Your task to perform on an android device: Go to Android settings Image 0: 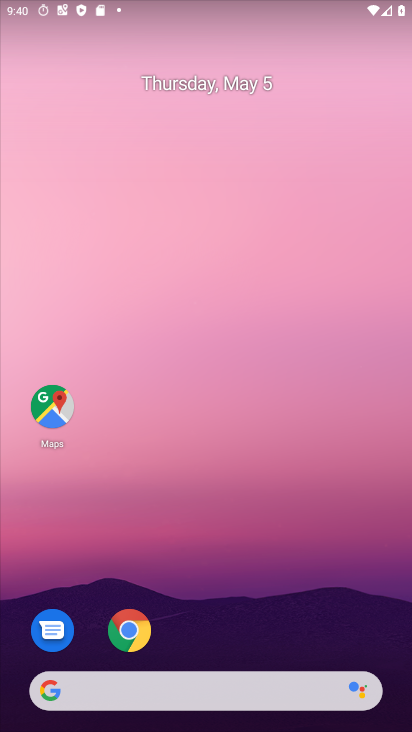
Step 0: drag from (205, 522) to (52, 120)
Your task to perform on an android device: Go to Android settings Image 1: 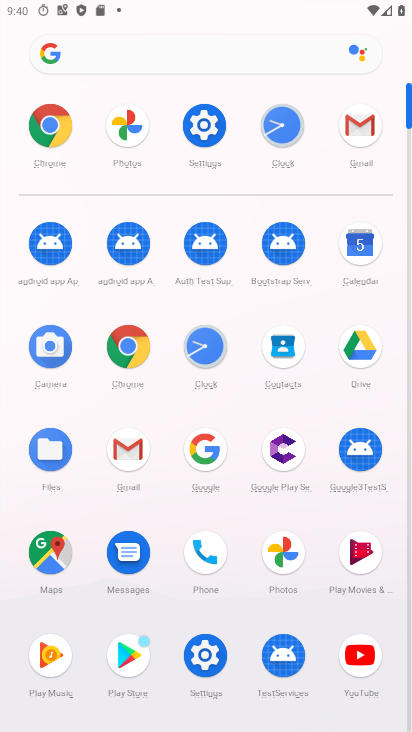
Step 1: click (209, 652)
Your task to perform on an android device: Go to Android settings Image 2: 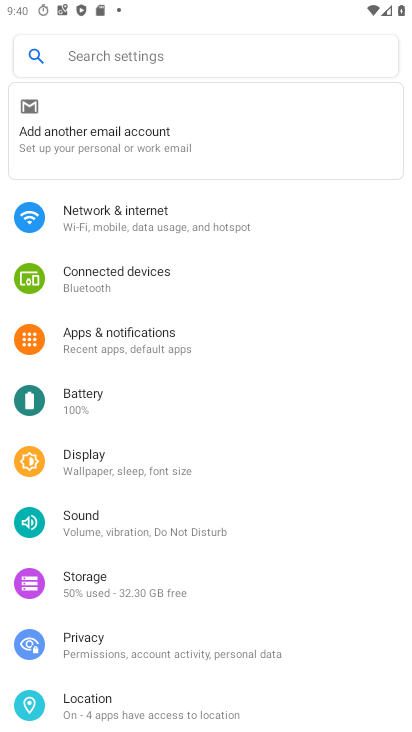
Step 2: drag from (270, 664) to (188, 122)
Your task to perform on an android device: Go to Android settings Image 3: 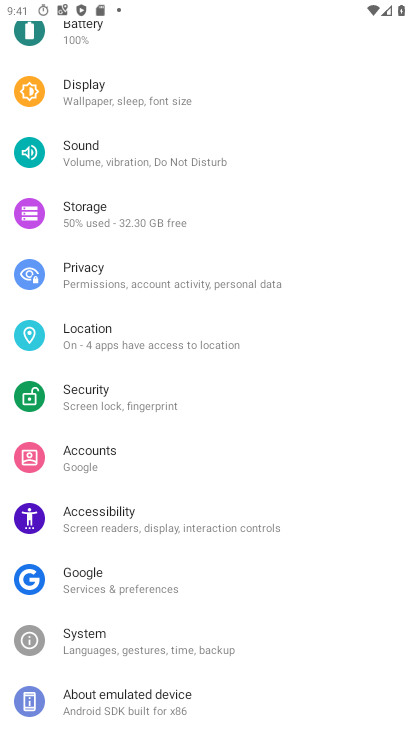
Step 3: click (132, 701)
Your task to perform on an android device: Go to Android settings Image 4: 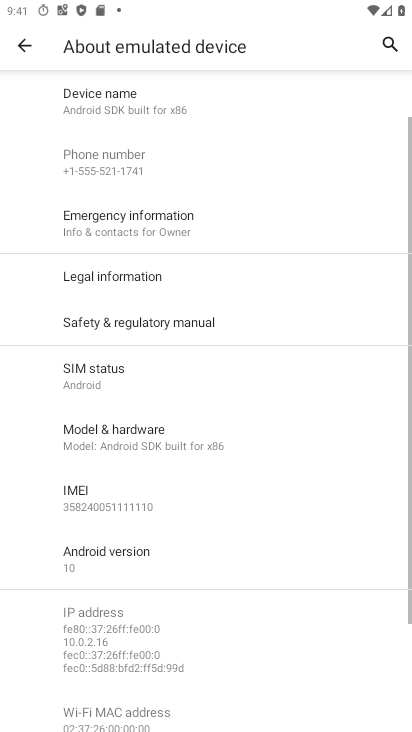
Step 4: click (97, 566)
Your task to perform on an android device: Go to Android settings Image 5: 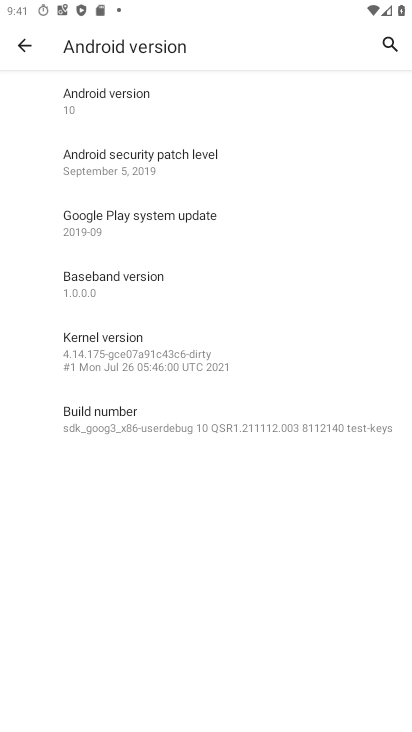
Step 5: task complete